Your task to perform on an android device: Open settings Image 0: 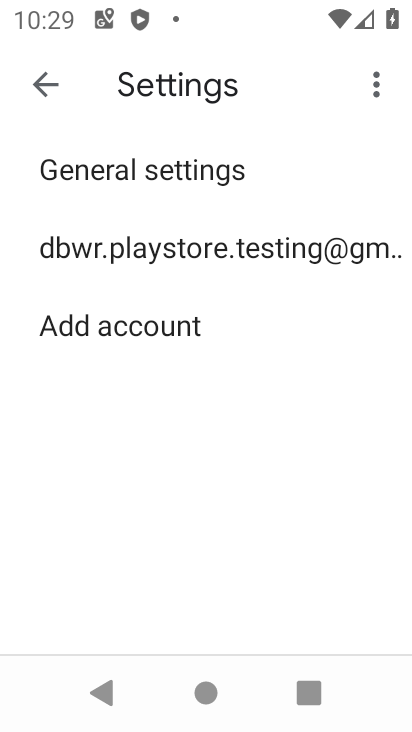
Step 0: press home button
Your task to perform on an android device: Open settings Image 1: 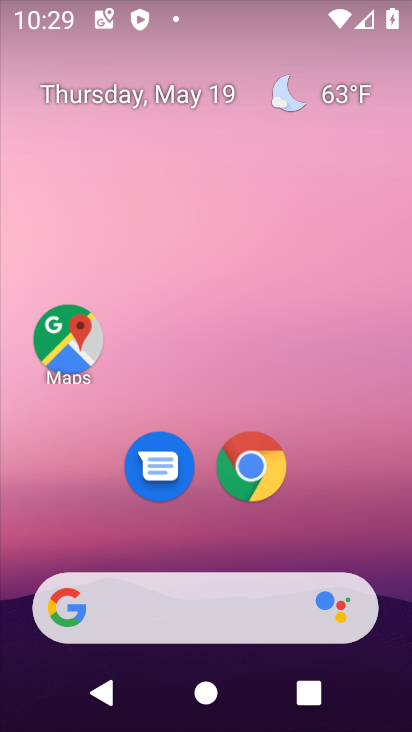
Step 1: drag from (386, 590) to (295, 67)
Your task to perform on an android device: Open settings Image 2: 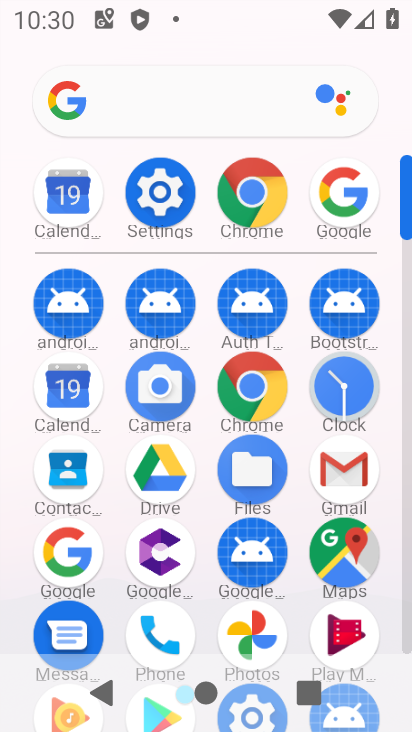
Step 2: click (184, 208)
Your task to perform on an android device: Open settings Image 3: 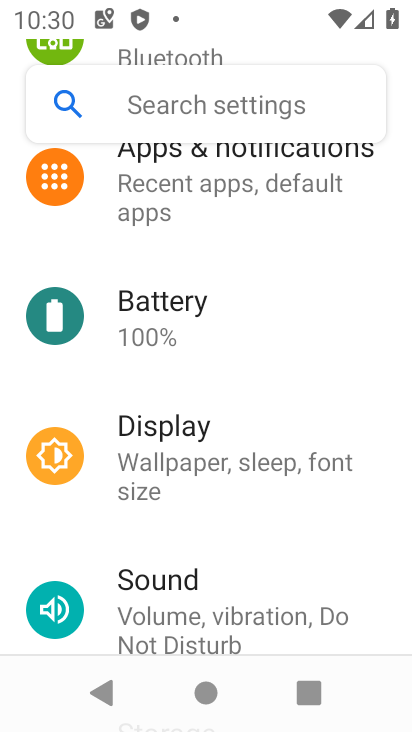
Step 3: task complete